Your task to perform on an android device: Check the news Image 0: 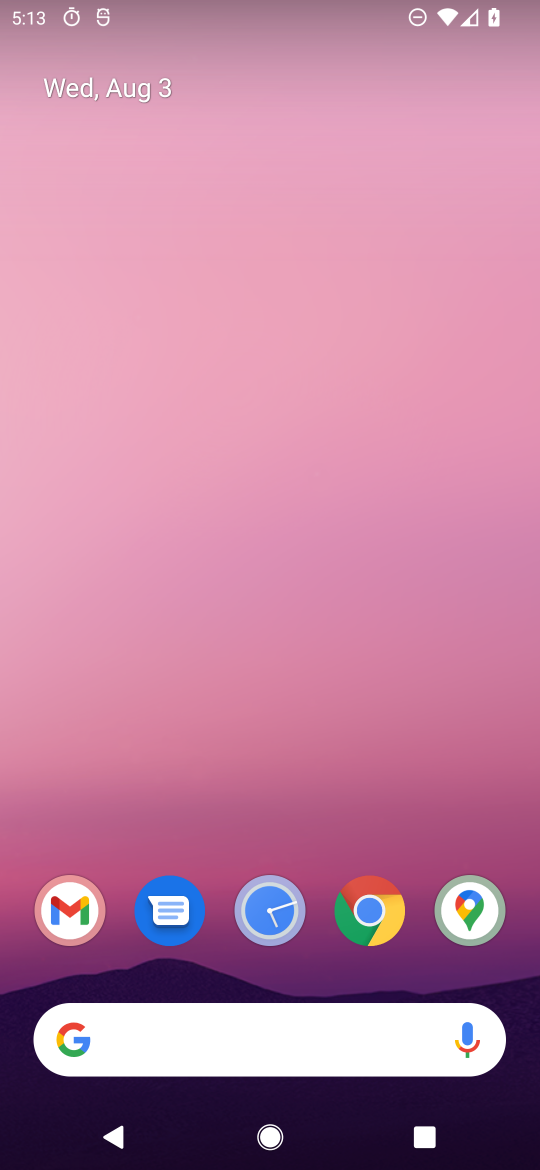
Step 0: click (142, 1046)
Your task to perform on an android device: Check the news Image 1: 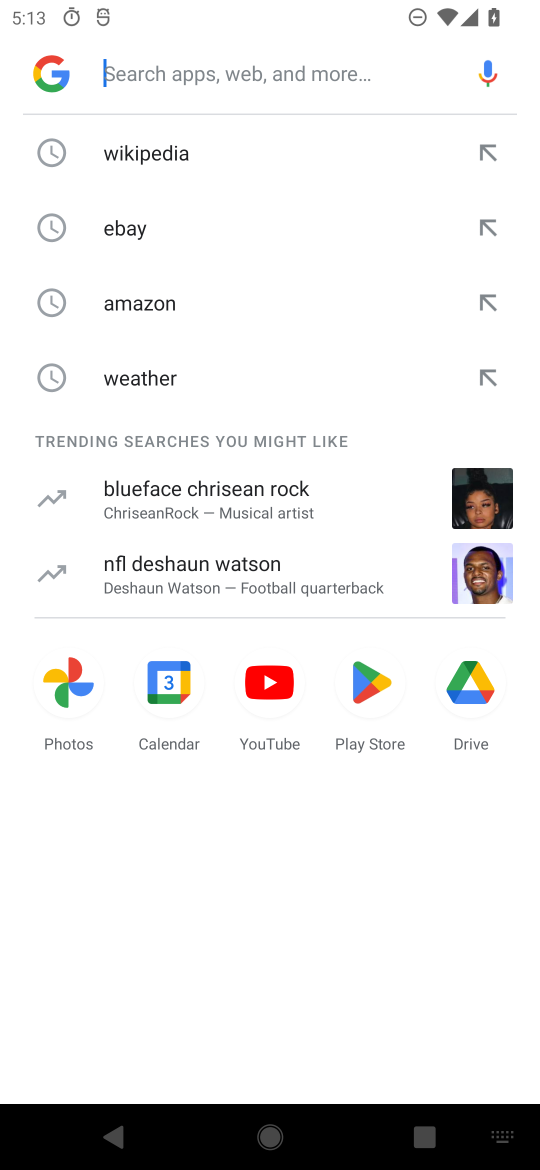
Step 1: type "Check the news"
Your task to perform on an android device: Check the news Image 2: 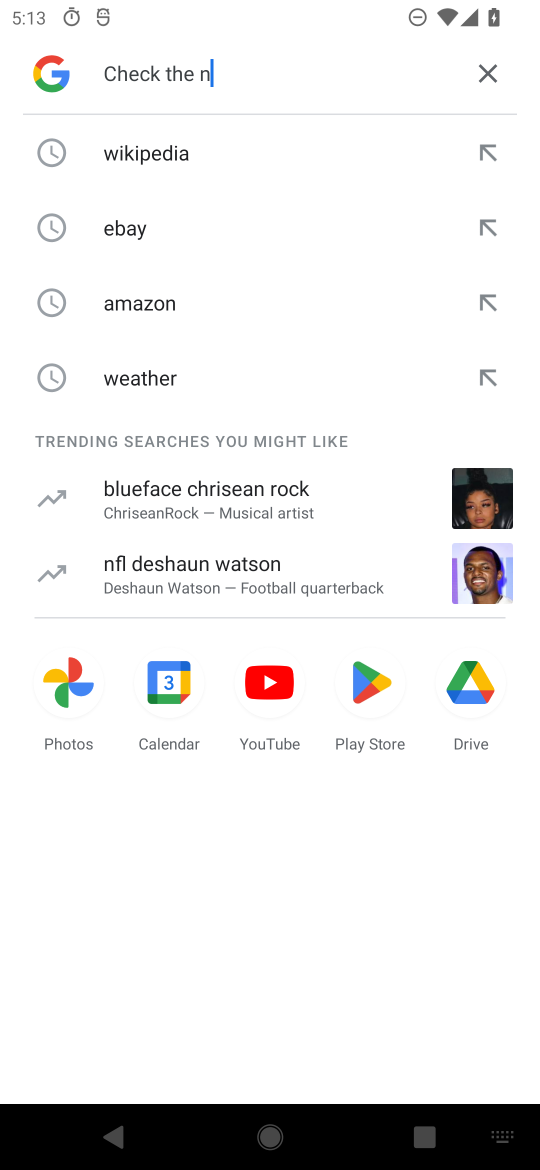
Step 2: type ""
Your task to perform on an android device: Check the news Image 3: 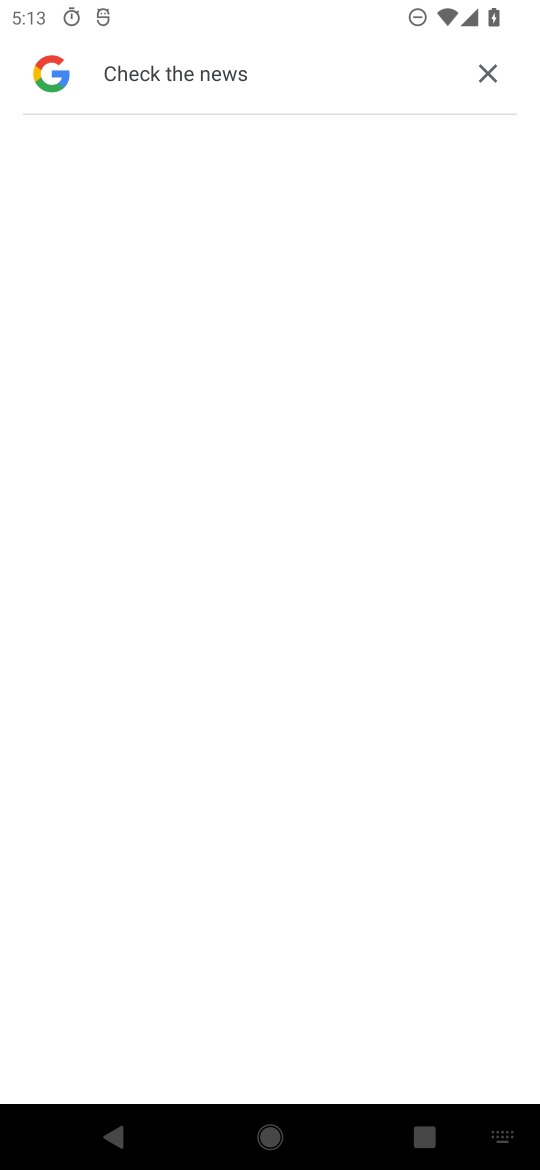
Step 3: task complete